Your task to perform on an android device: Open the calendar and show me this week's events? Image 0: 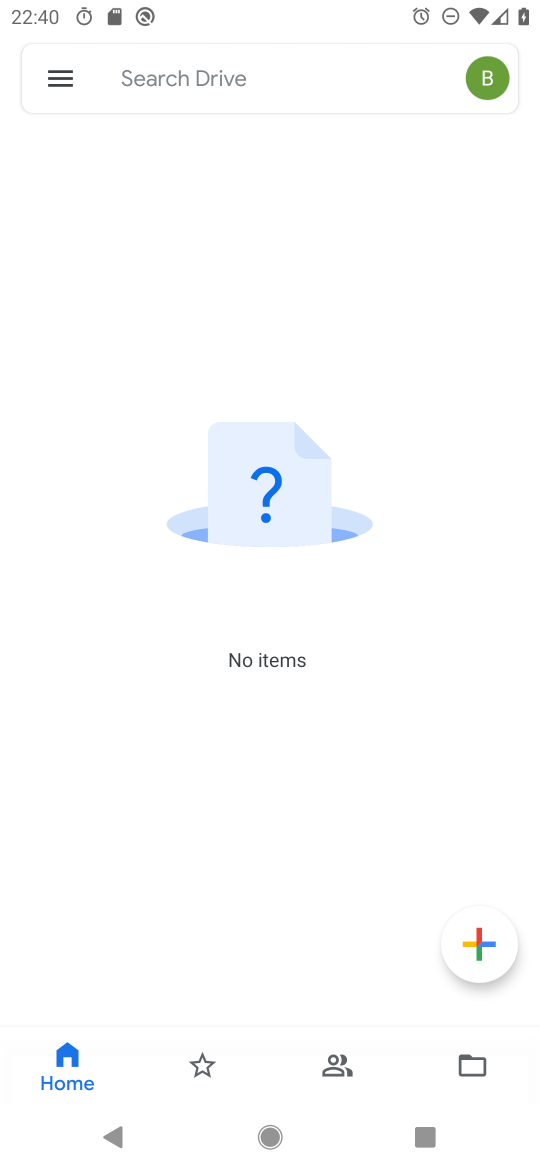
Step 0: drag from (241, 929) to (341, 448)
Your task to perform on an android device: Open the calendar and show me this week's events? Image 1: 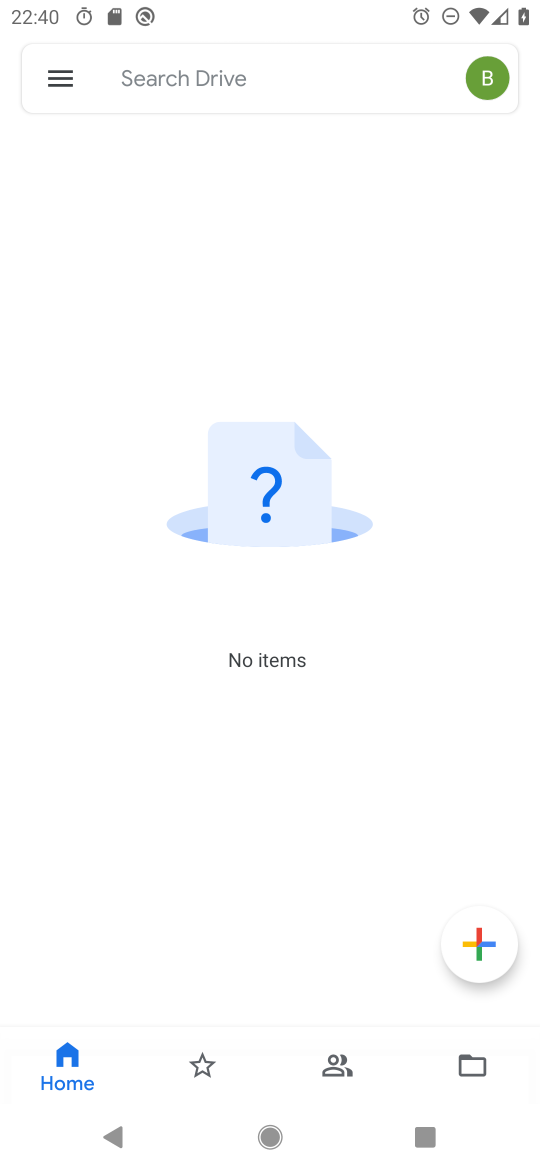
Step 1: press home button
Your task to perform on an android device: Open the calendar and show me this week's events? Image 2: 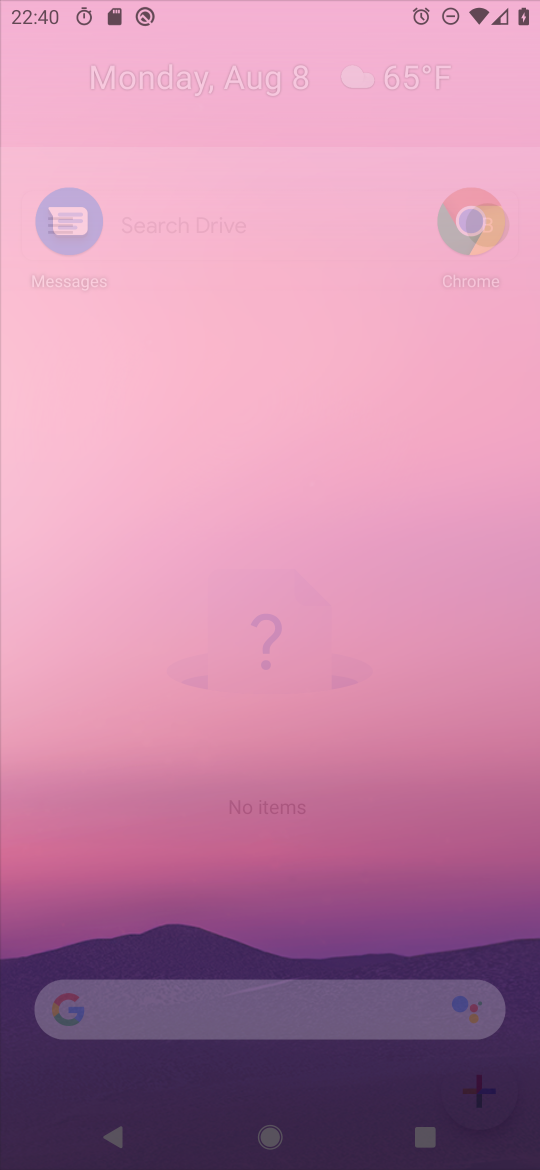
Step 2: drag from (346, 947) to (361, 58)
Your task to perform on an android device: Open the calendar and show me this week's events? Image 3: 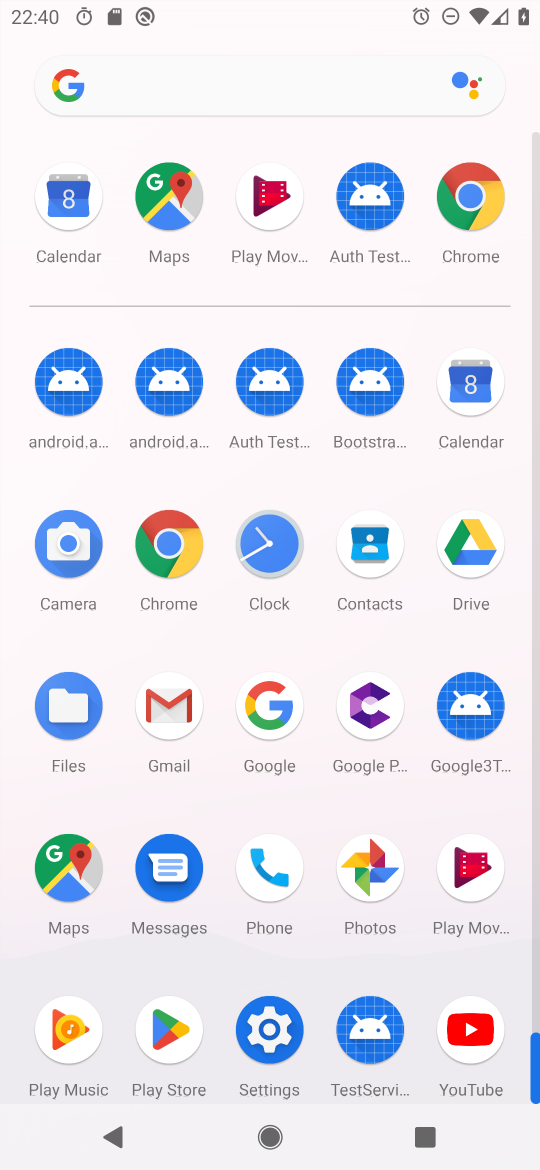
Step 3: drag from (322, 874) to (332, 356)
Your task to perform on an android device: Open the calendar and show me this week's events? Image 4: 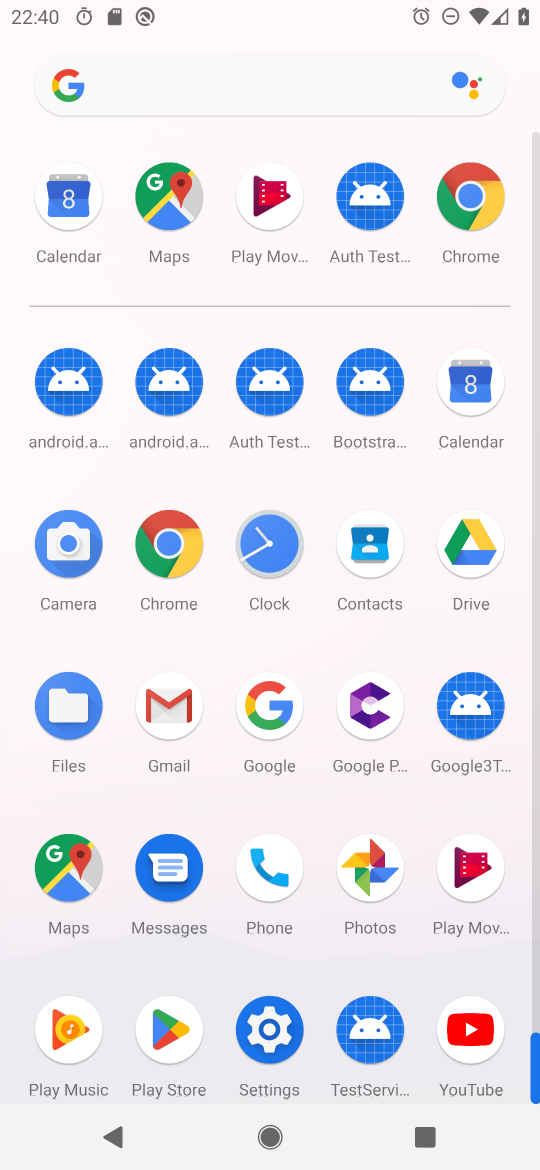
Step 4: click (485, 380)
Your task to perform on an android device: Open the calendar and show me this week's events? Image 5: 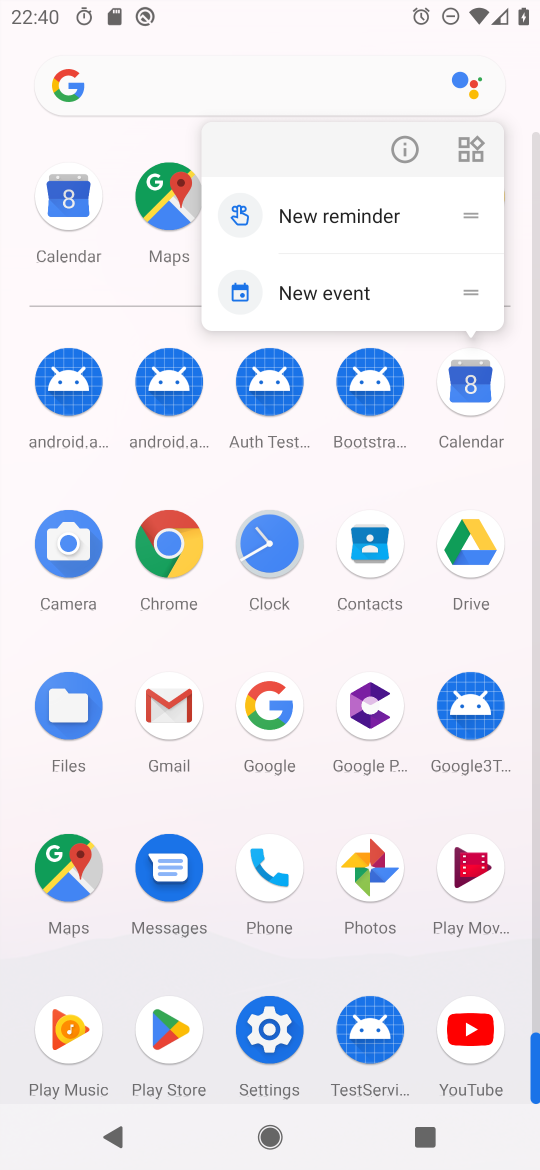
Step 5: click (412, 122)
Your task to perform on an android device: Open the calendar and show me this week's events? Image 6: 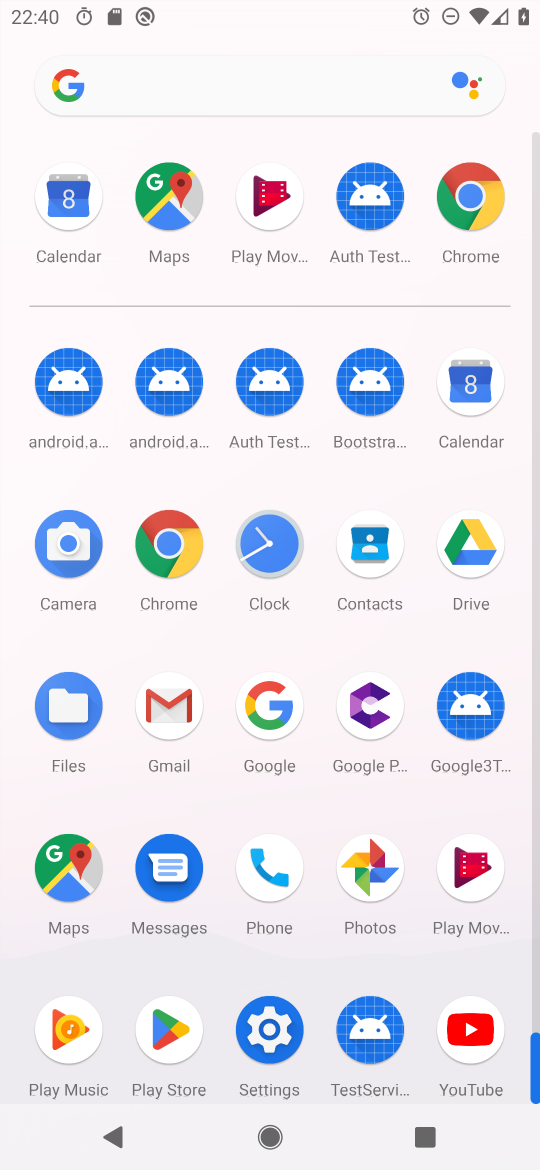
Step 6: click (459, 384)
Your task to perform on an android device: Open the calendar and show me this week's events? Image 7: 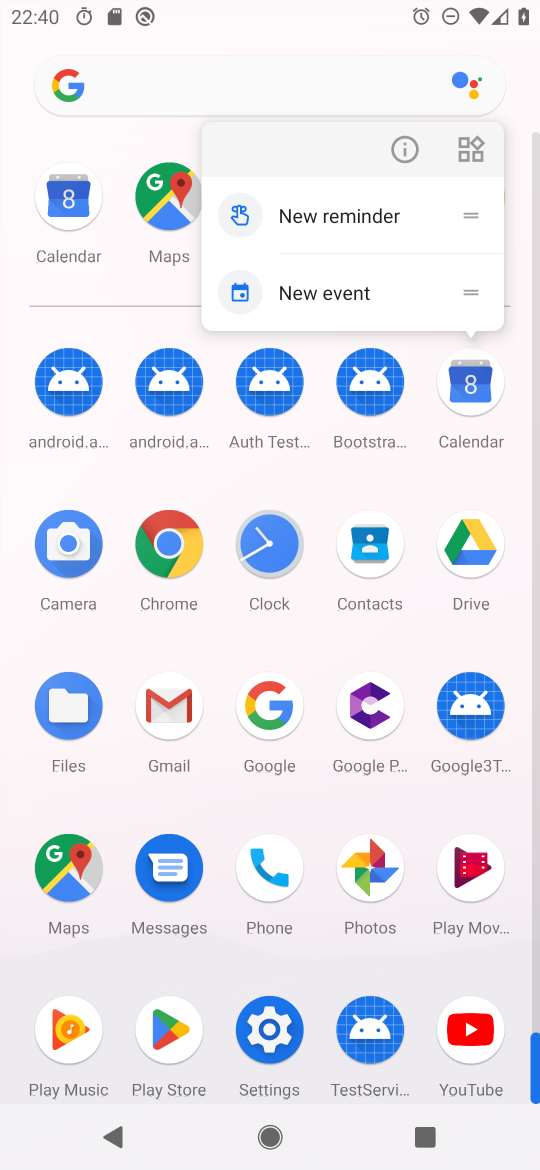
Step 7: click (402, 149)
Your task to perform on an android device: Open the calendar and show me this week's events? Image 8: 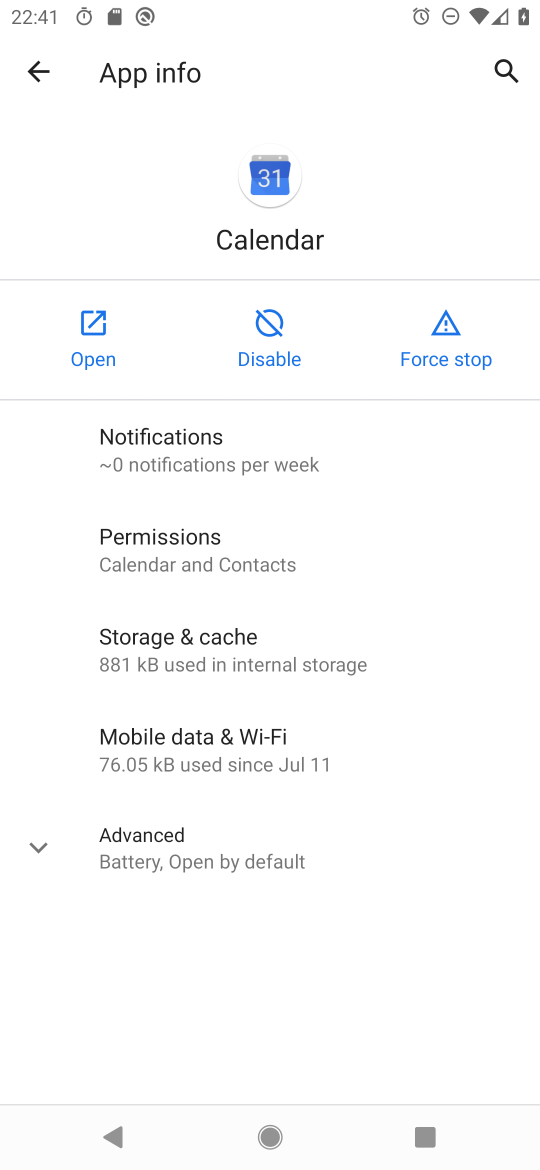
Step 8: click (90, 362)
Your task to perform on an android device: Open the calendar and show me this week's events? Image 9: 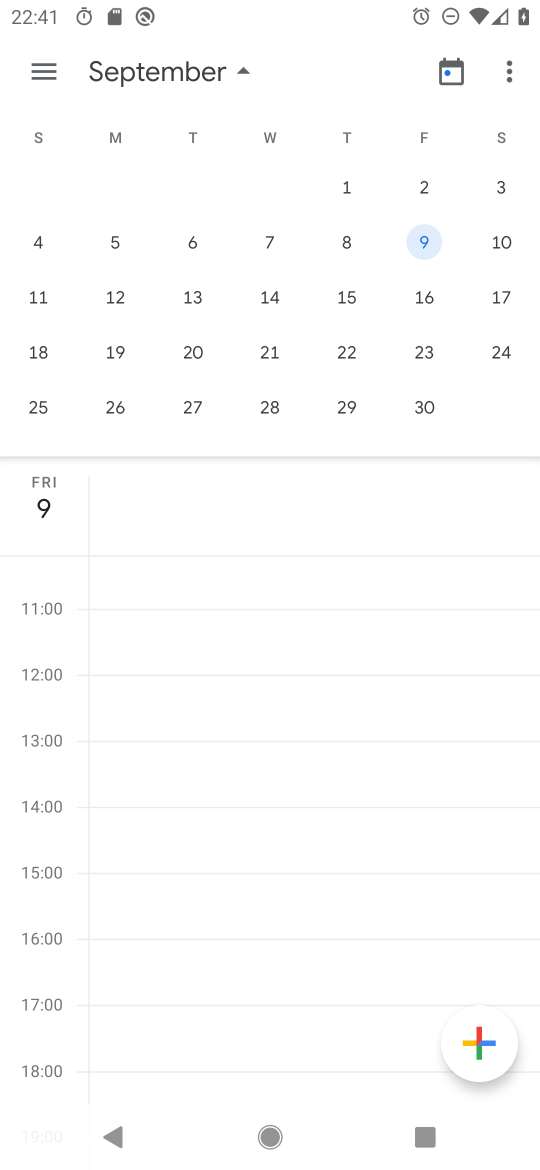
Step 9: click (452, 72)
Your task to perform on an android device: Open the calendar and show me this week's events? Image 10: 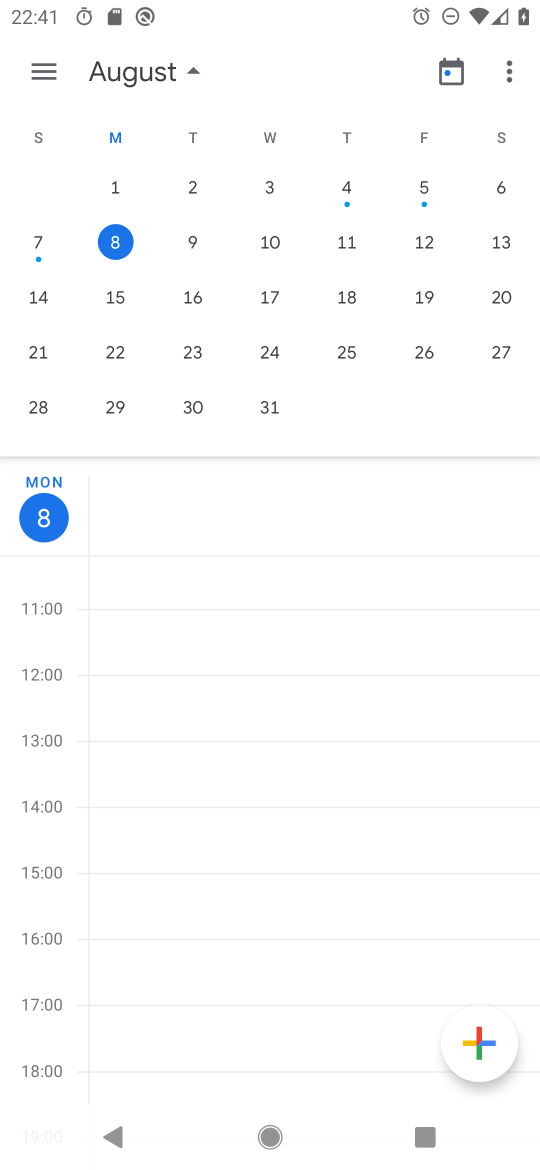
Step 10: click (463, 237)
Your task to perform on an android device: Open the calendar and show me this week's events? Image 11: 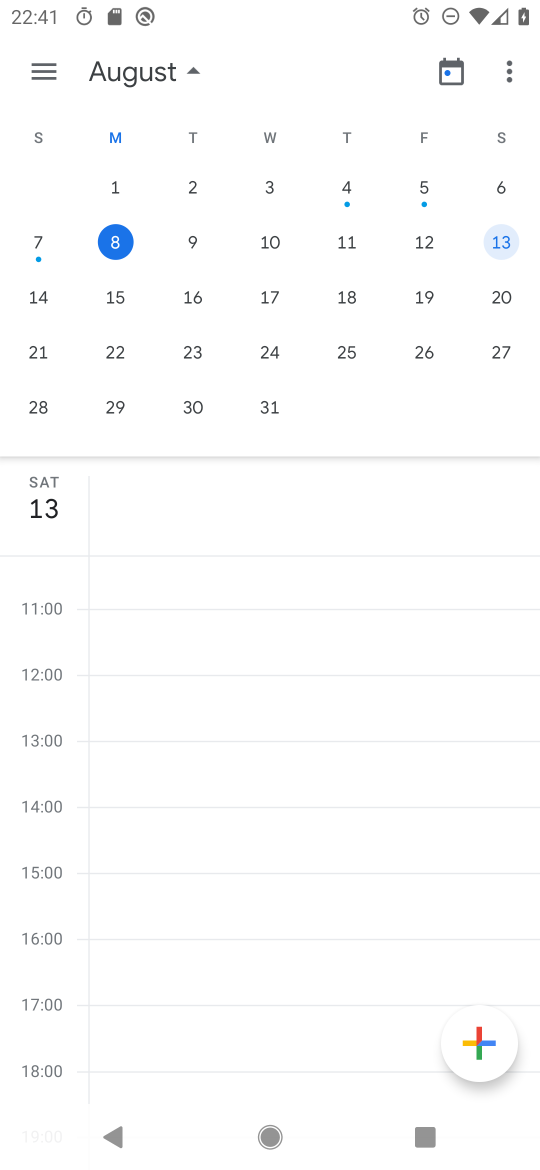
Step 11: click (396, 228)
Your task to perform on an android device: Open the calendar and show me this week's events? Image 12: 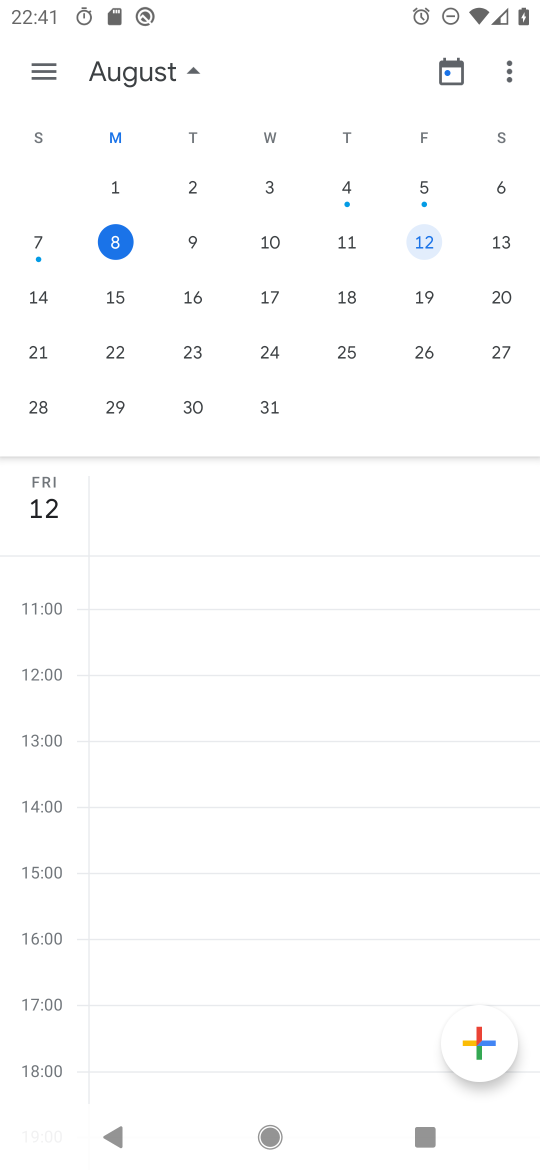
Step 12: task complete